Your task to perform on an android device: Go to internet settings Image 0: 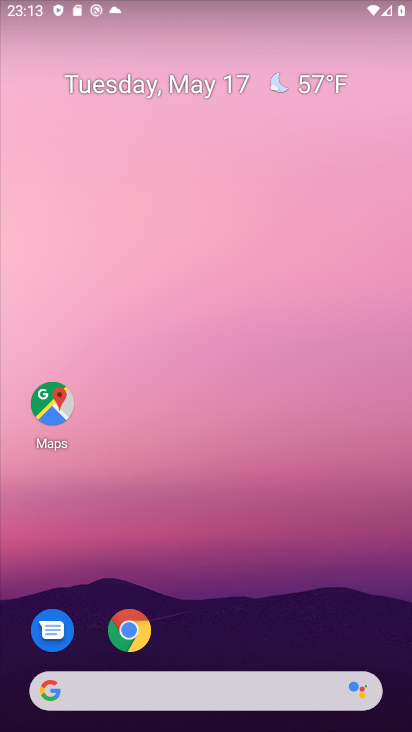
Step 0: drag from (209, 614) to (304, 196)
Your task to perform on an android device: Go to internet settings Image 1: 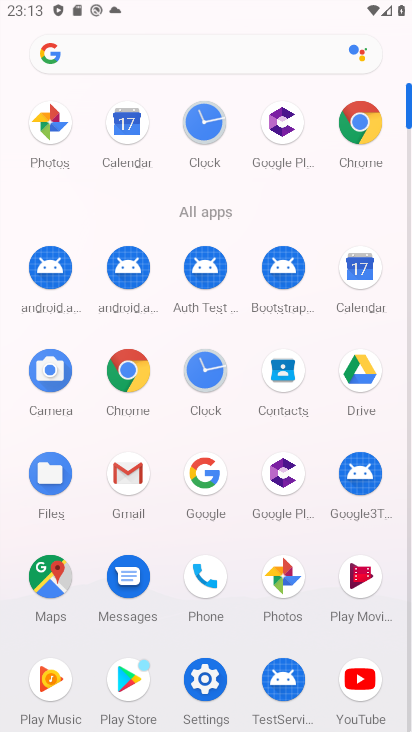
Step 1: click (202, 680)
Your task to perform on an android device: Go to internet settings Image 2: 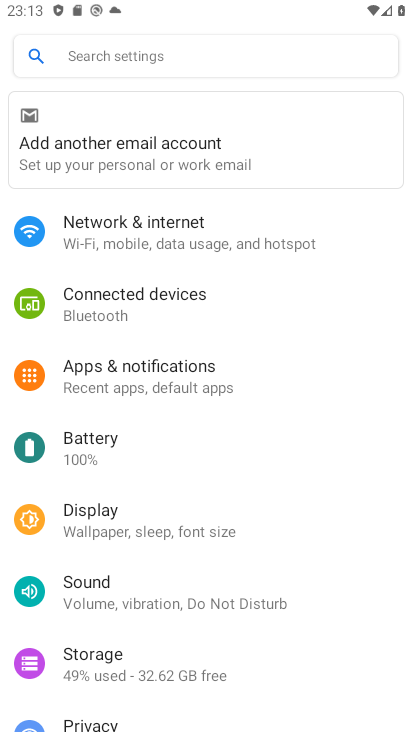
Step 2: click (255, 252)
Your task to perform on an android device: Go to internet settings Image 3: 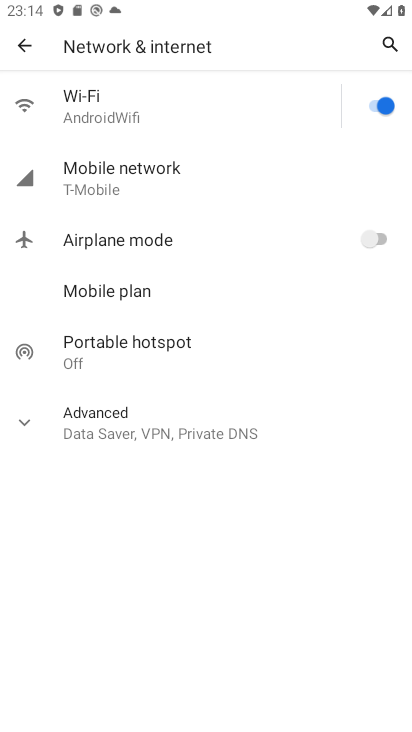
Step 3: task complete